Your task to perform on an android device: Go to Maps Image 0: 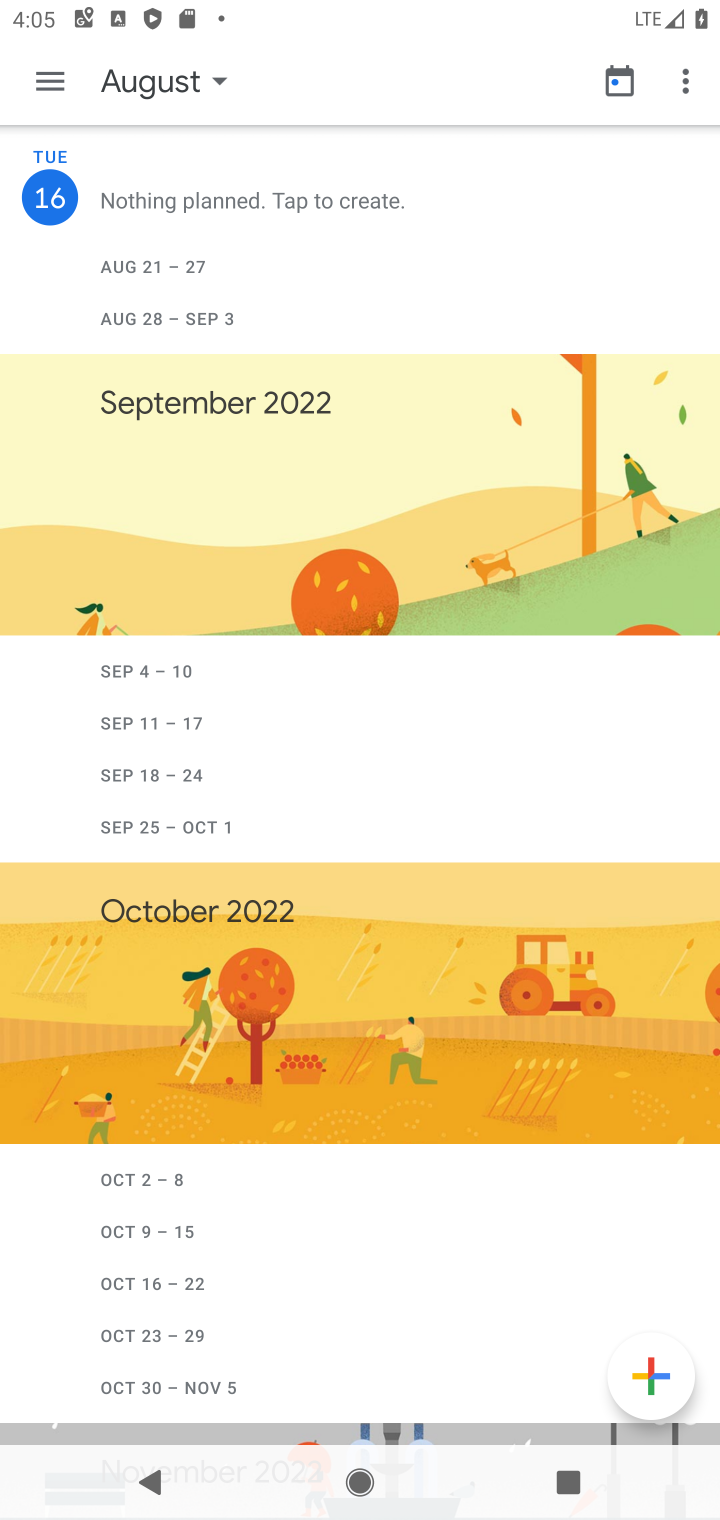
Step 0: press home button
Your task to perform on an android device: Go to Maps Image 1: 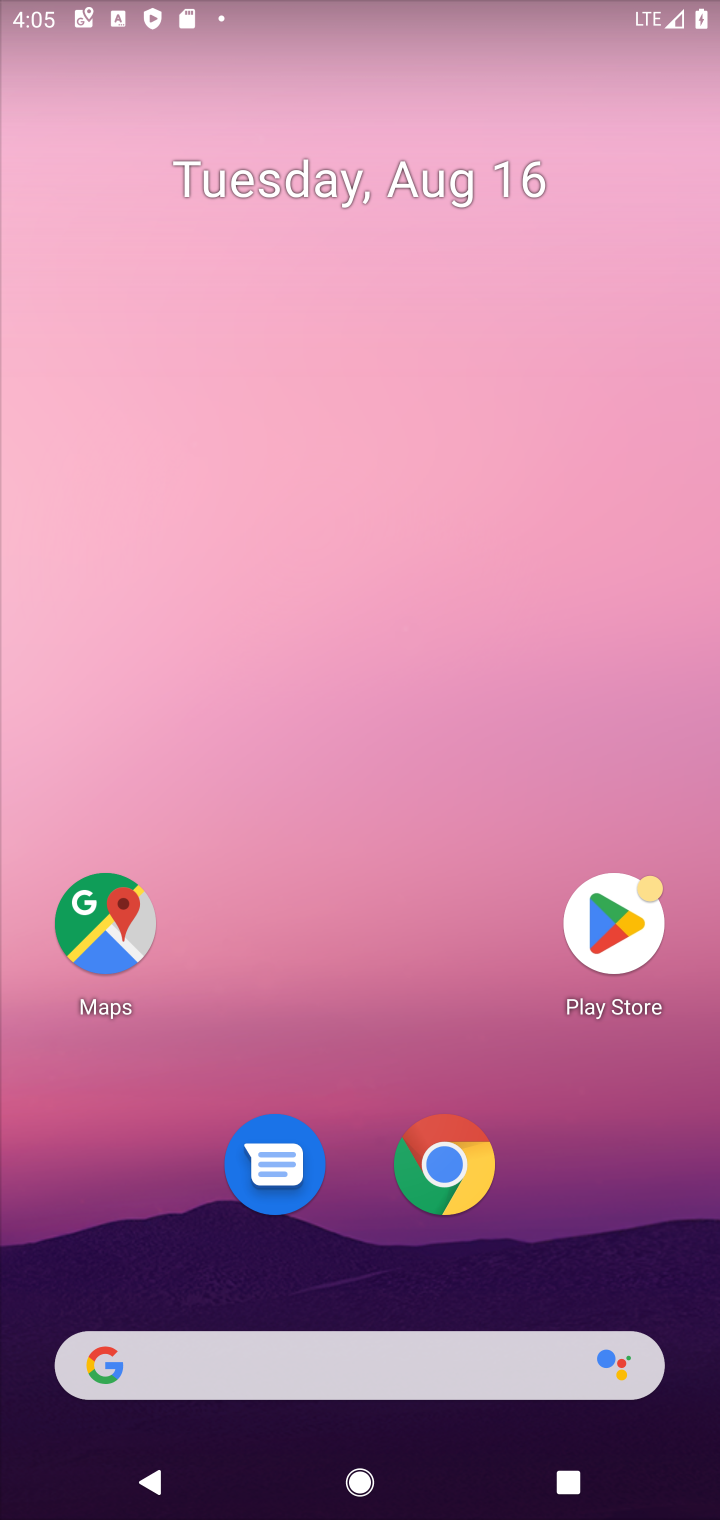
Step 1: drag from (437, 1107) to (455, 291)
Your task to perform on an android device: Go to Maps Image 2: 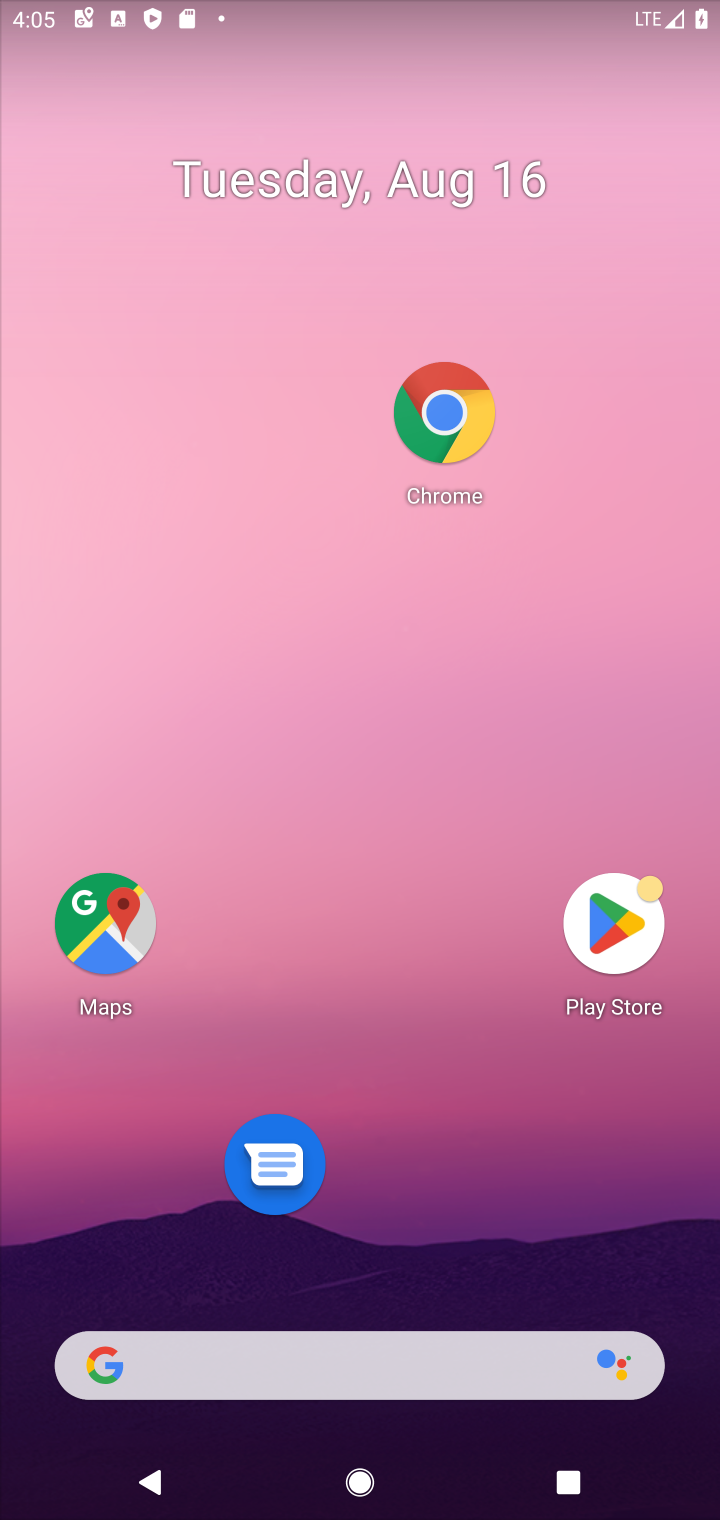
Step 2: drag from (331, 545) to (244, 127)
Your task to perform on an android device: Go to Maps Image 3: 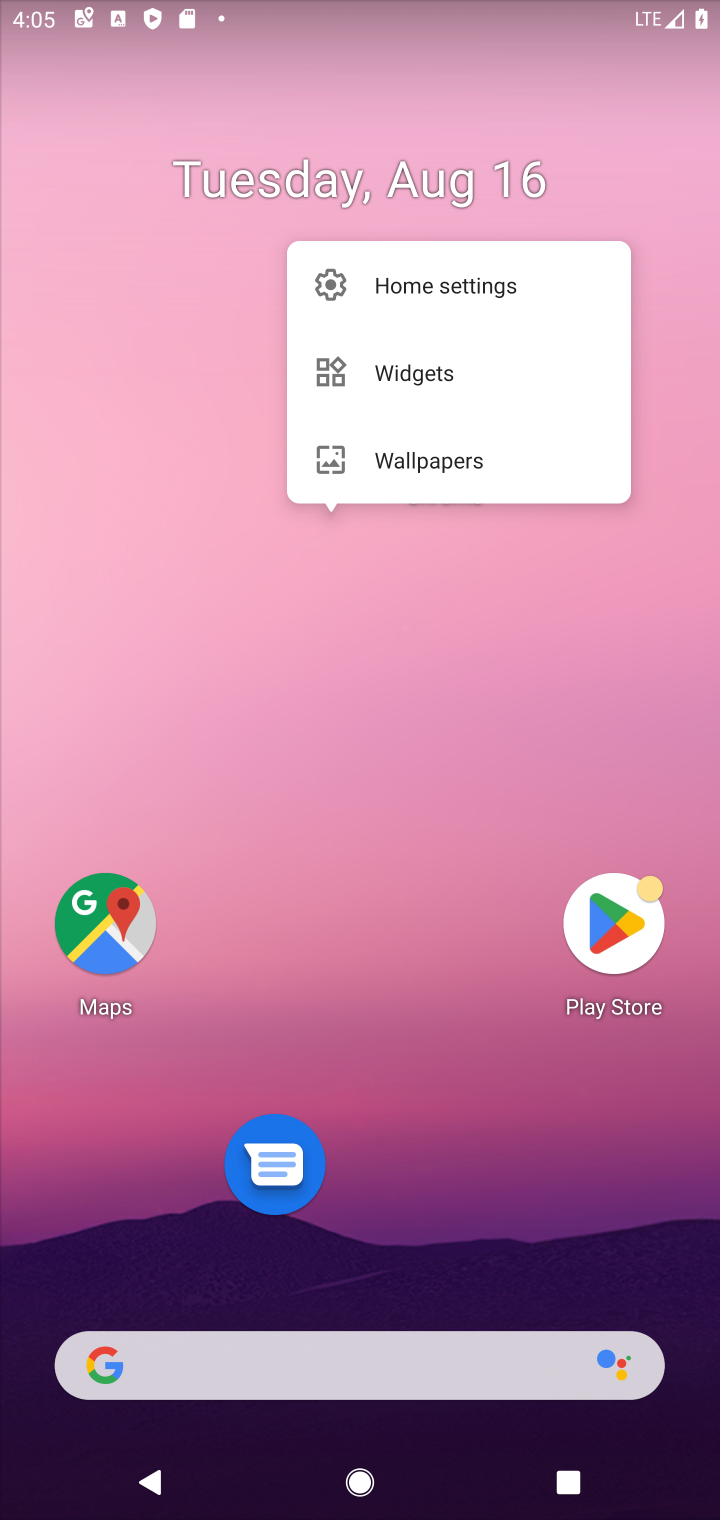
Step 3: click (411, 1096)
Your task to perform on an android device: Go to Maps Image 4: 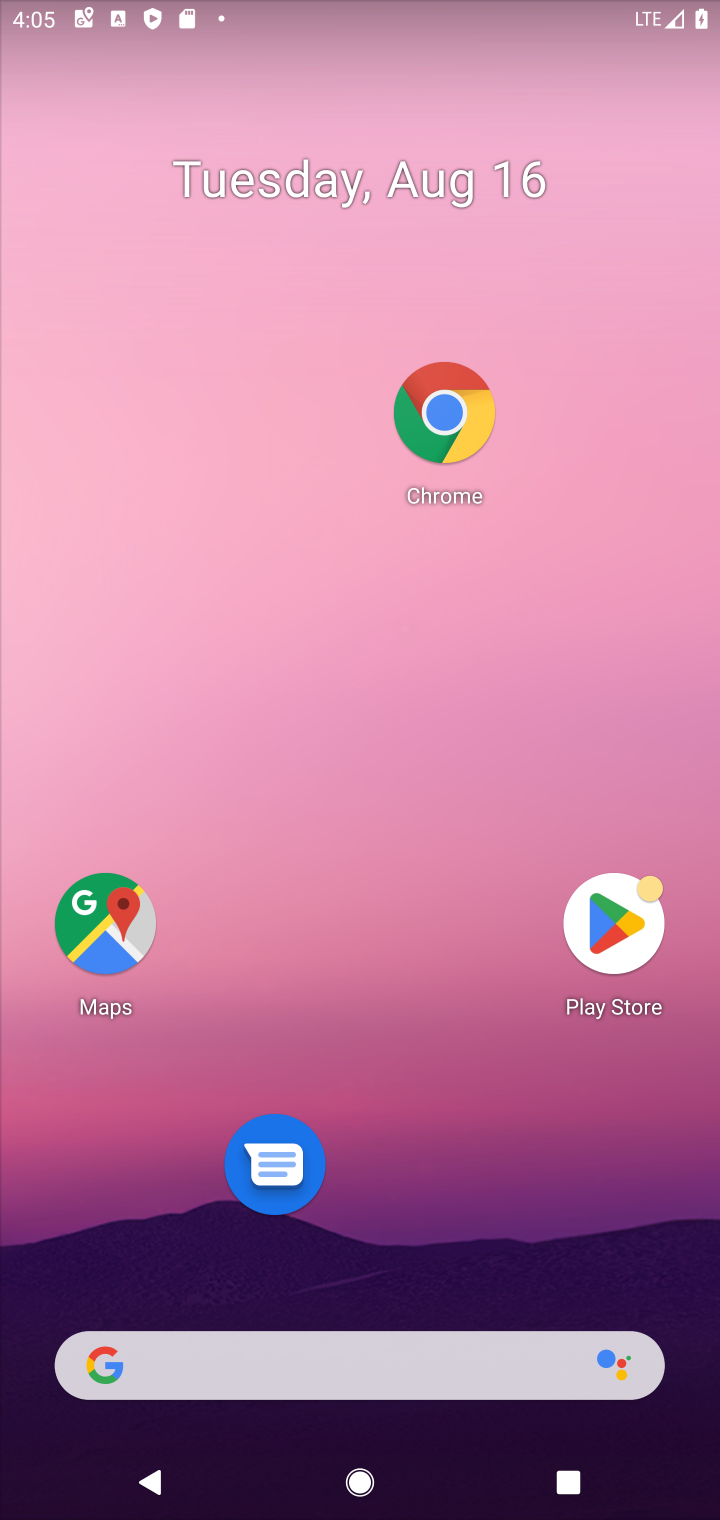
Step 4: drag from (398, 941) to (298, 130)
Your task to perform on an android device: Go to Maps Image 5: 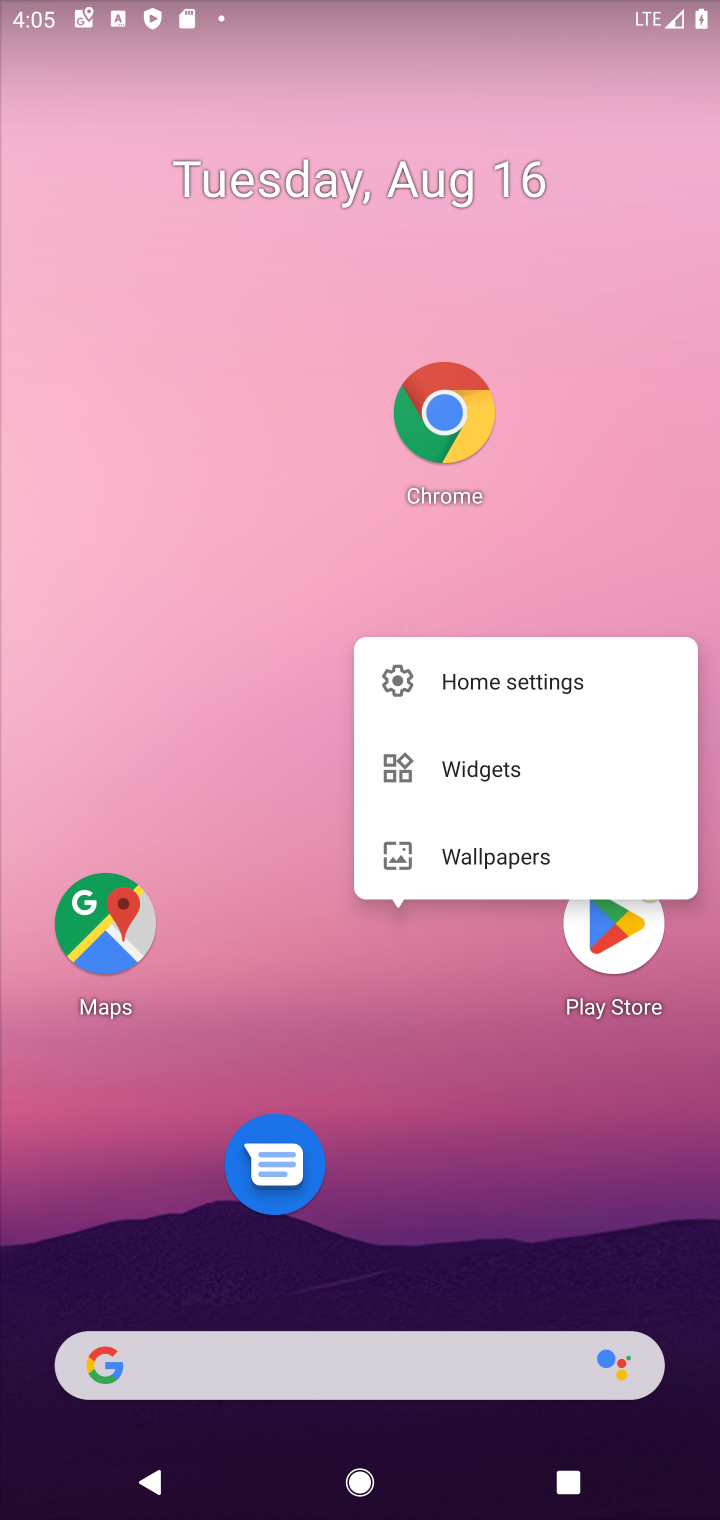
Step 5: click (351, 1230)
Your task to perform on an android device: Go to Maps Image 6: 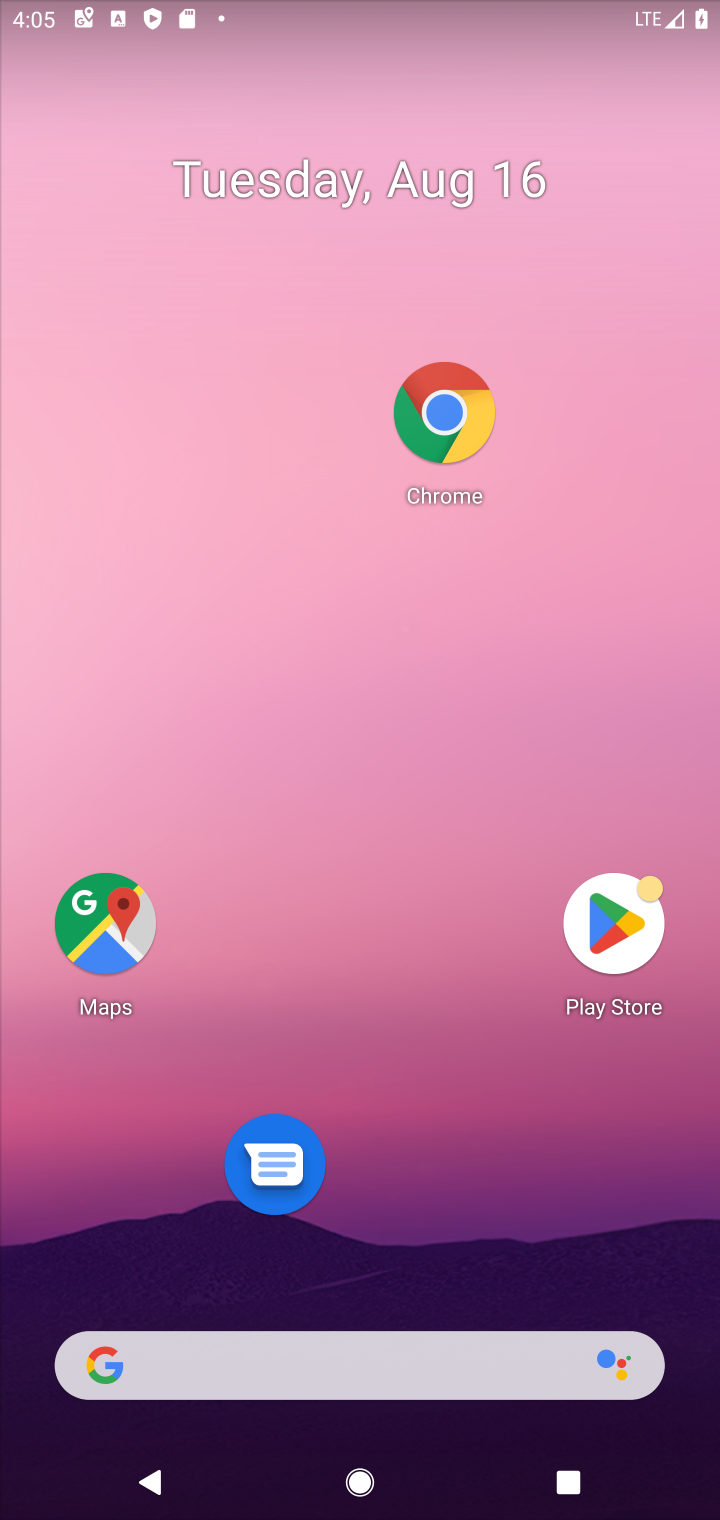
Step 6: drag from (353, 428) to (333, 315)
Your task to perform on an android device: Go to Maps Image 7: 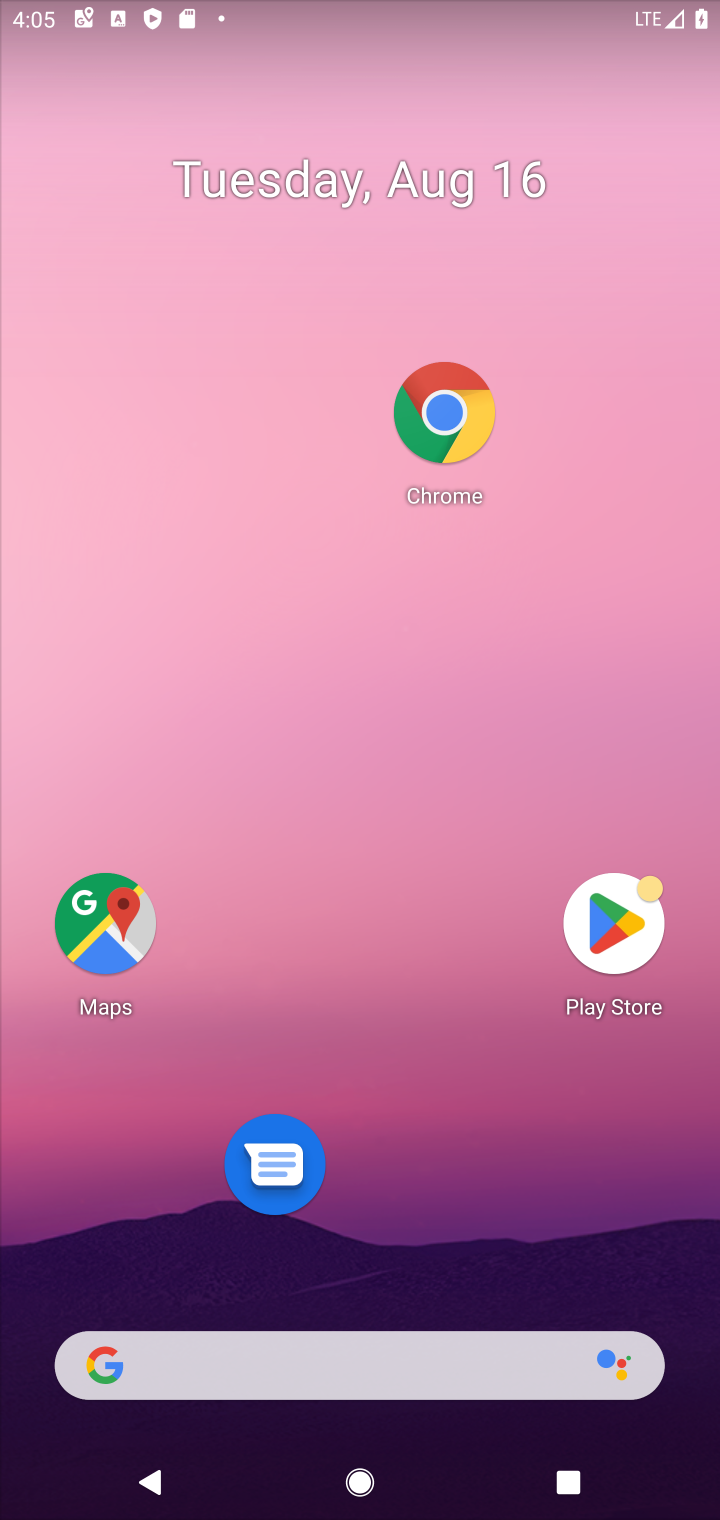
Step 7: drag from (308, 523) to (281, 89)
Your task to perform on an android device: Go to Maps Image 8: 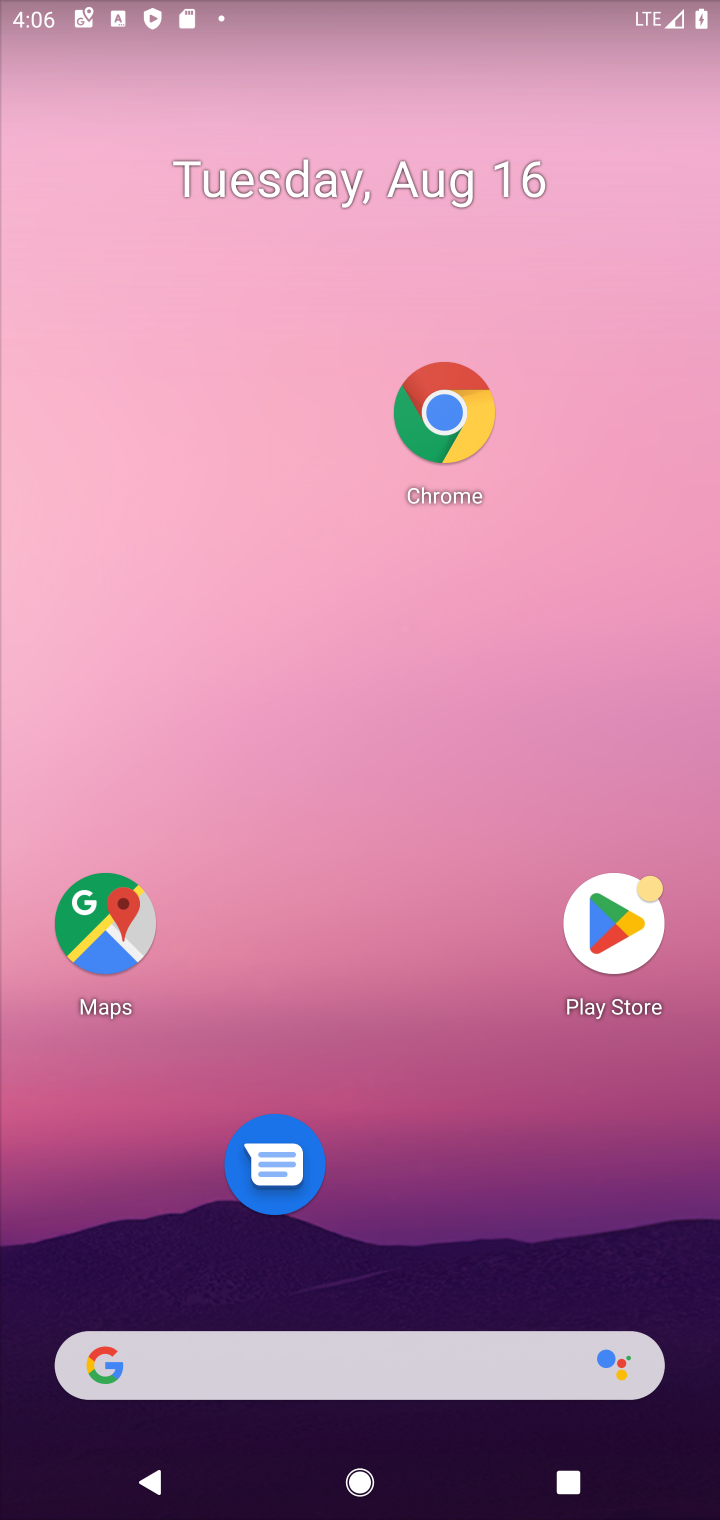
Step 8: drag from (345, 1010) to (328, 143)
Your task to perform on an android device: Go to Maps Image 9: 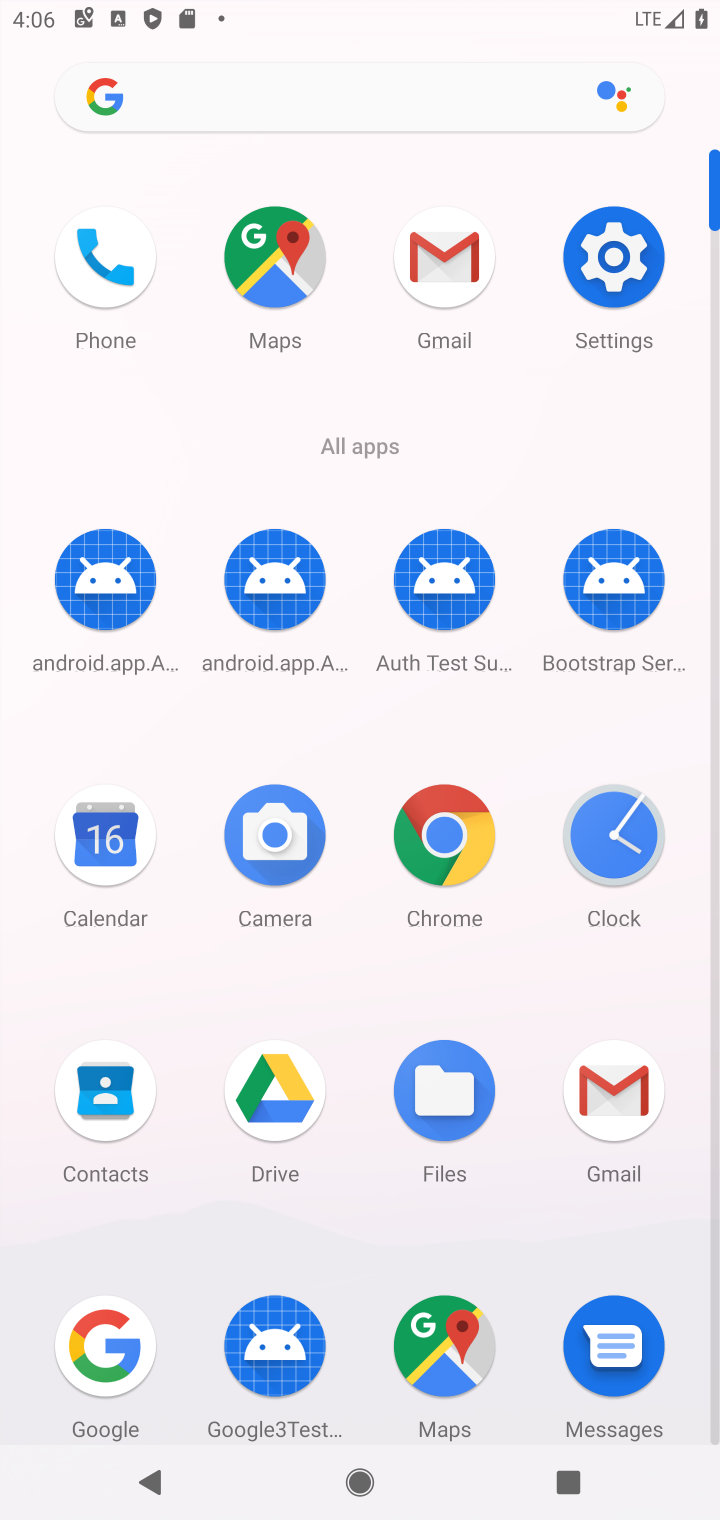
Step 9: click (457, 1380)
Your task to perform on an android device: Go to Maps Image 10: 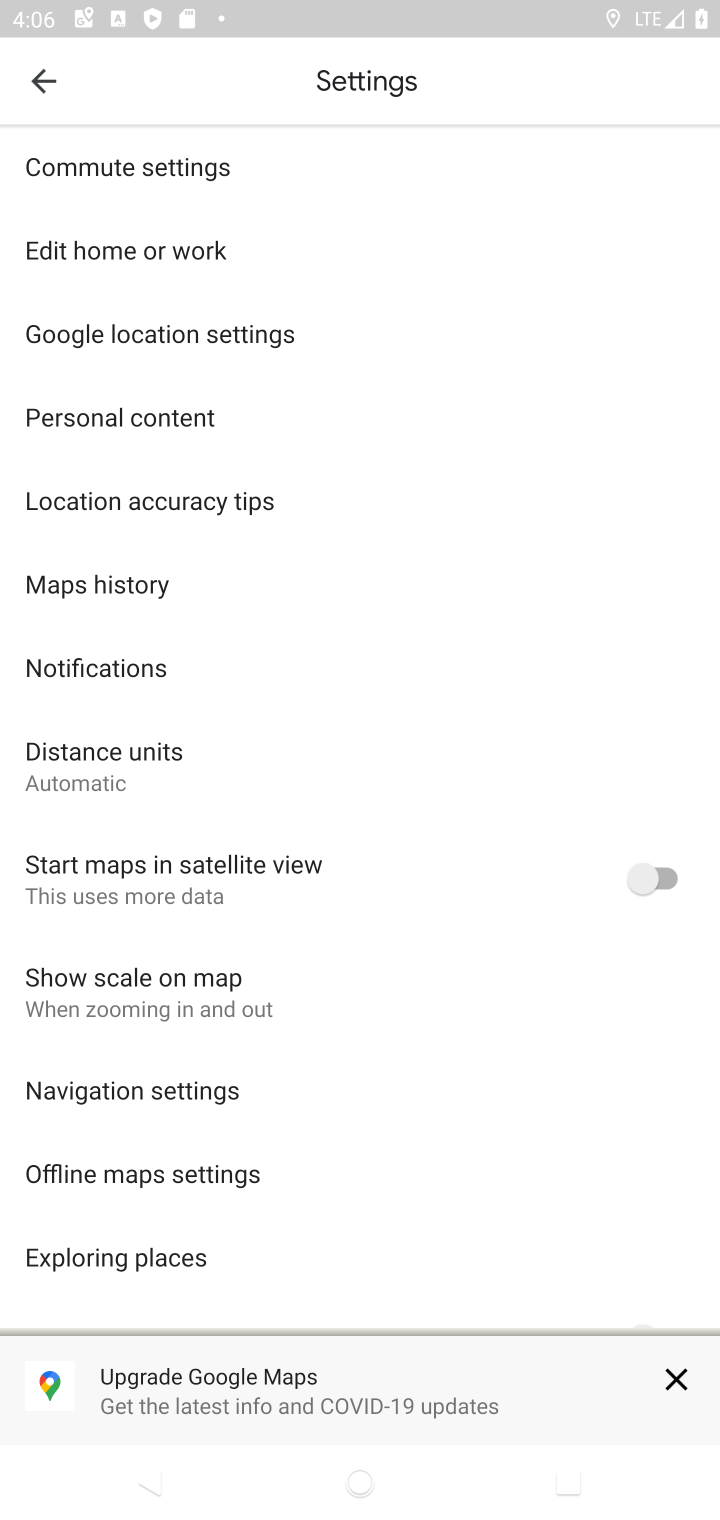
Step 10: task complete